Your task to perform on an android device: find photos in the google photos app Image 0: 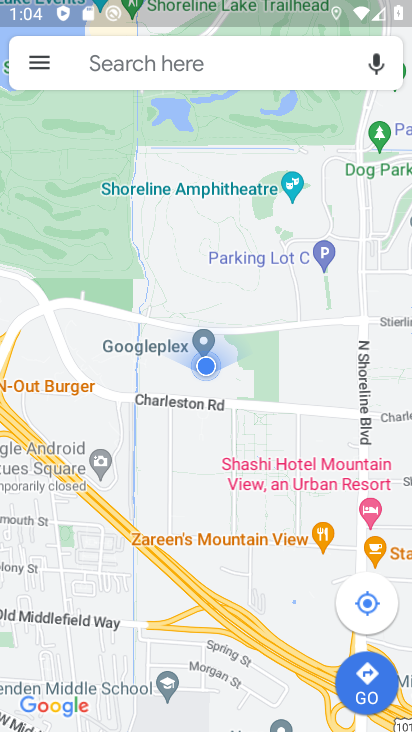
Step 0: press home button
Your task to perform on an android device: find photos in the google photos app Image 1: 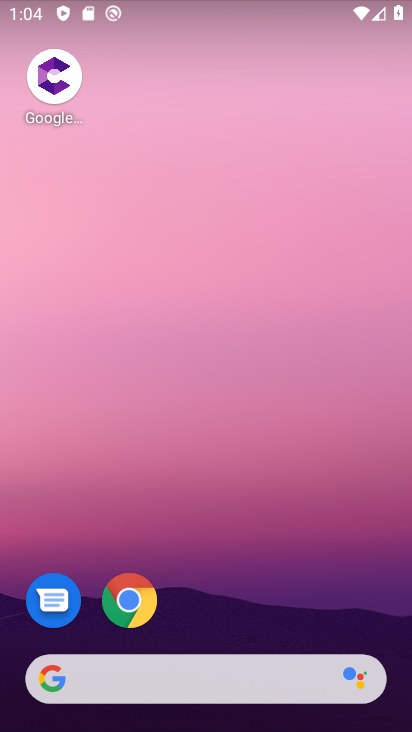
Step 1: drag from (229, 443) to (280, 12)
Your task to perform on an android device: find photos in the google photos app Image 2: 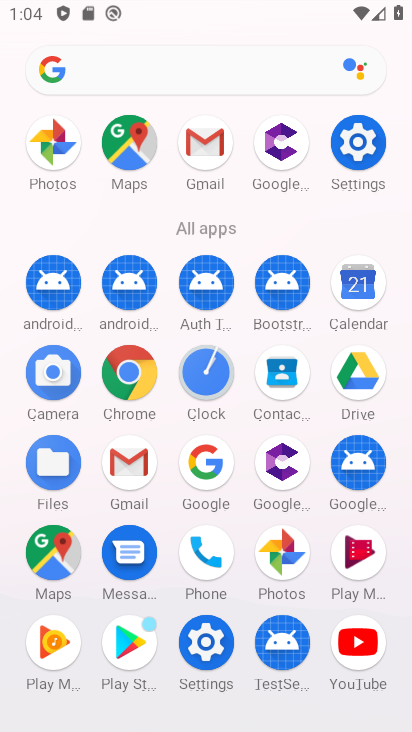
Step 2: click (52, 137)
Your task to perform on an android device: find photos in the google photos app Image 3: 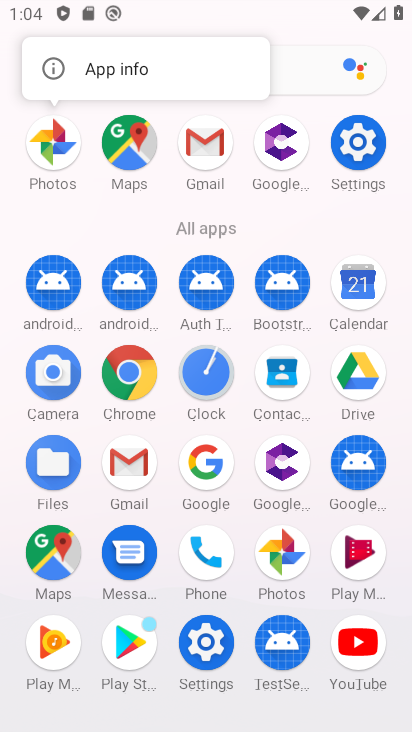
Step 3: click (57, 158)
Your task to perform on an android device: find photos in the google photos app Image 4: 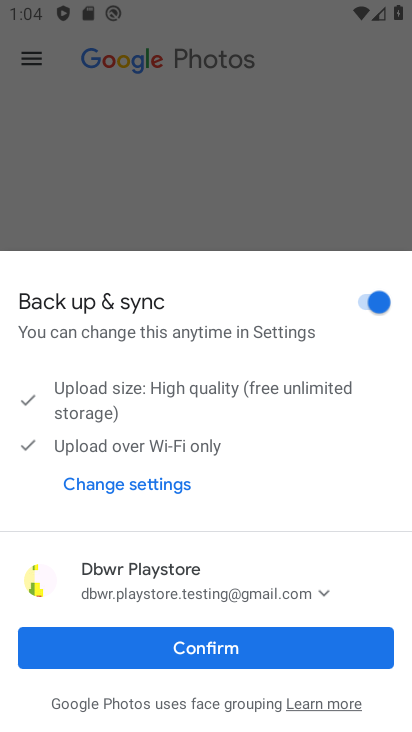
Step 4: click (219, 643)
Your task to perform on an android device: find photos in the google photos app Image 5: 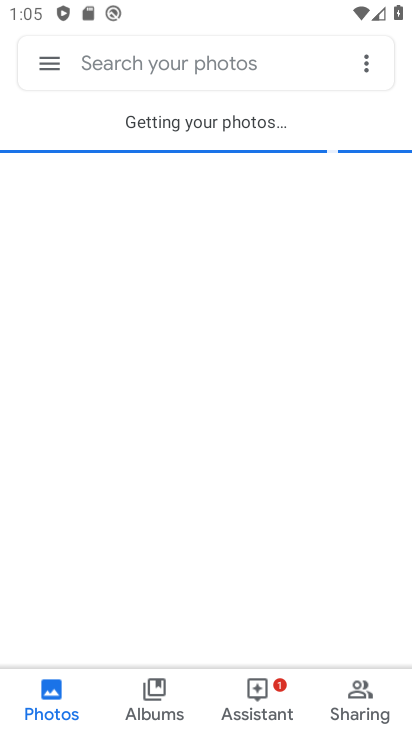
Step 5: click (167, 72)
Your task to perform on an android device: find photos in the google photos app Image 6: 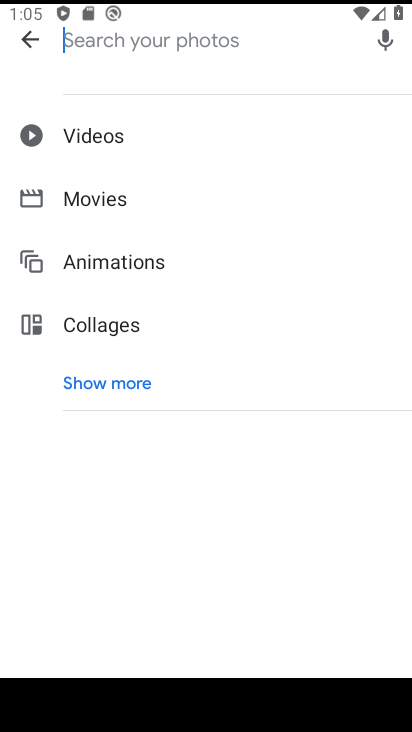
Step 6: type "aa"
Your task to perform on an android device: find photos in the google photos app Image 7: 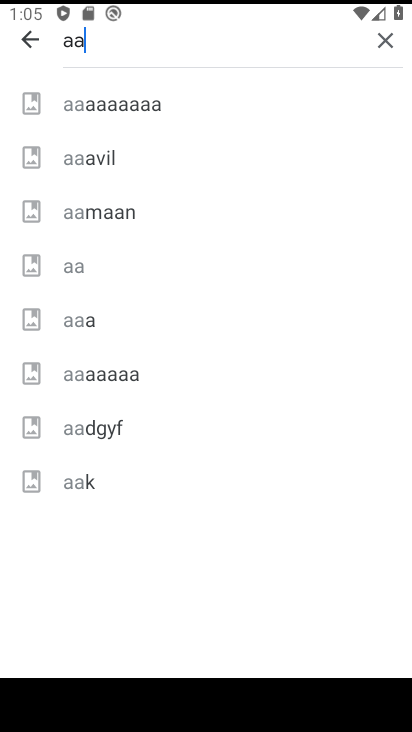
Step 7: click (104, 213)
Your task to perform on an android device: find photos in the google photos app Image 8: 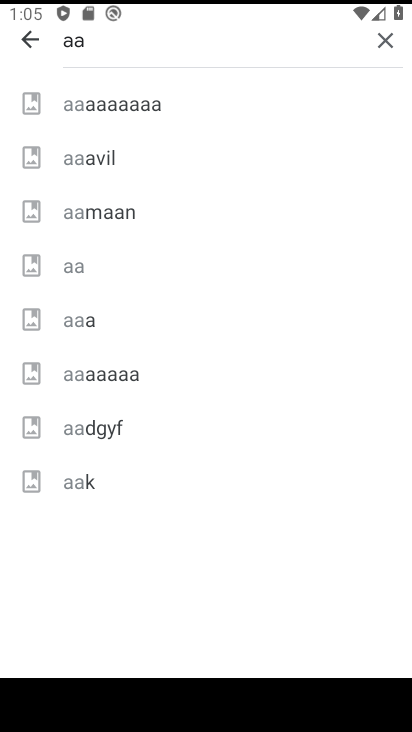
Step 8: click (104, 432)
Your task to perform on an android device: find photos in the google photos app Image 9: 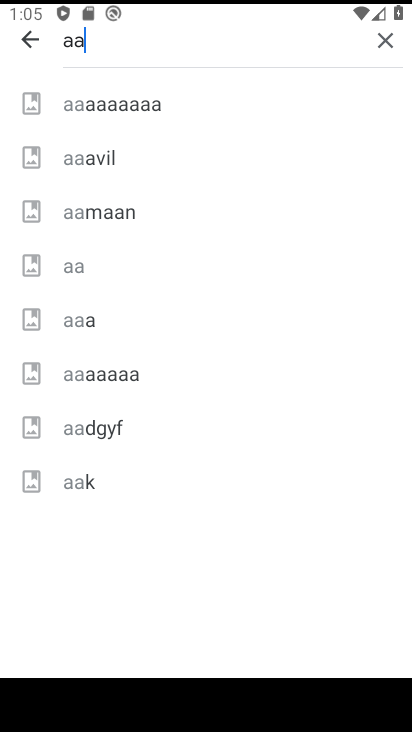
Step 9: click (86, 152)
Your task to perform on an android device: find photos in the google photos app Image 10: 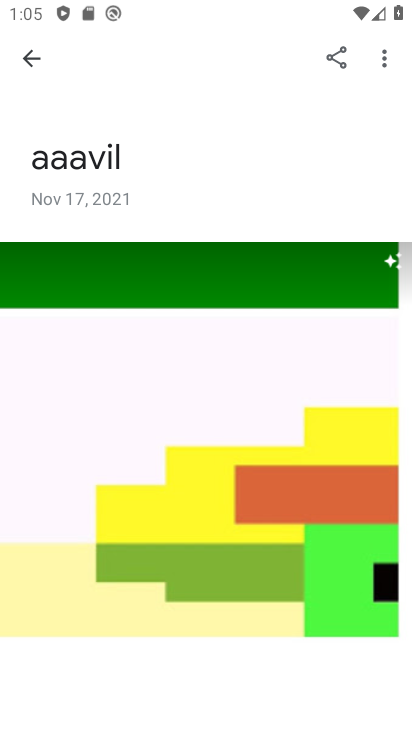
Step 10: task complete